Your task to perform on an android device: Do I have any events today? Image 0: 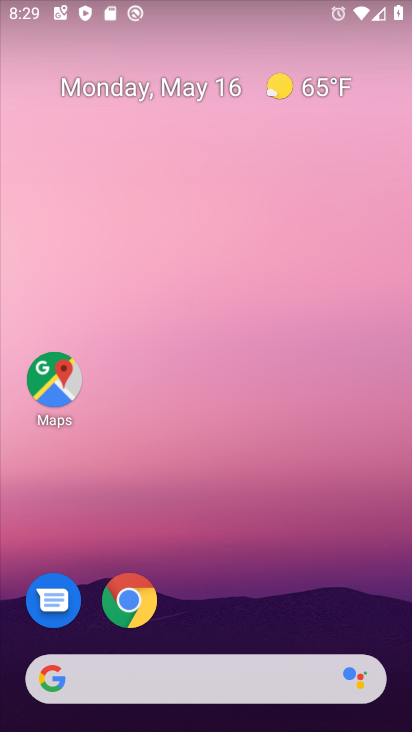
Step 0: click (245, 281)
Your task to perform on an android device: Do I have any events today? Image 1: 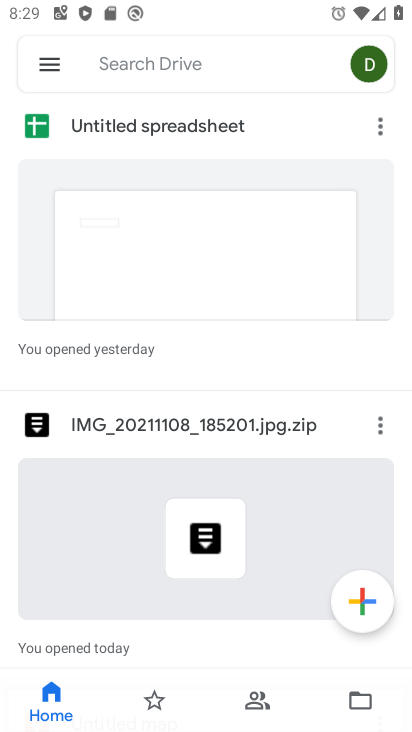
Step 1: drag from (206, 395) to (262, 1)
Your task to perform on an android device: Do I have any events today? Image 2: 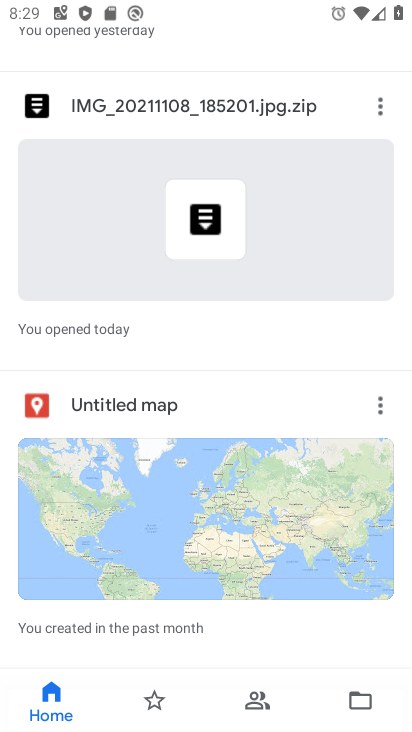
Step 2: drag from (218, 492) to (281, 209)
Your task to perform on an android device: Do I have any events today? Image 3: 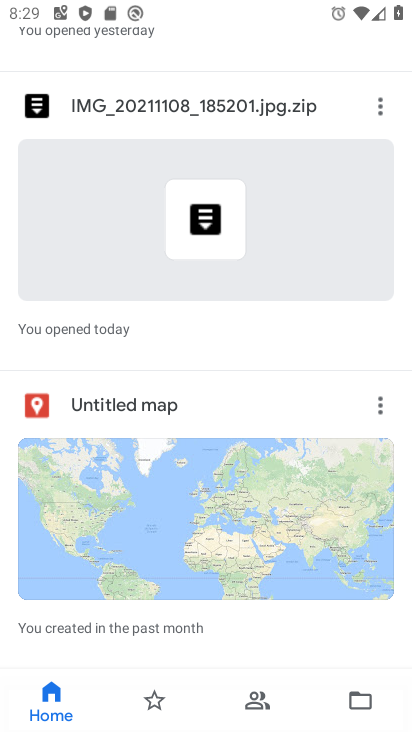
Step 3: drag from (93, 123) to (264, 551)
Your task to perform on an android device: Do I have any events today? Image 4: 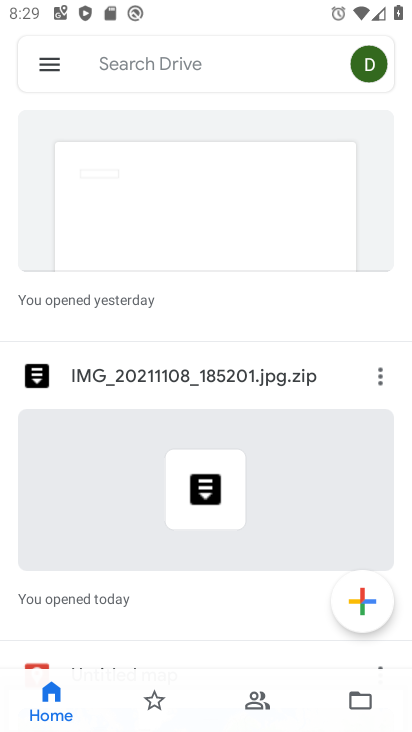
Step 4: press home button
Your task to perform on an android device: Do I have any events today? Image 5: 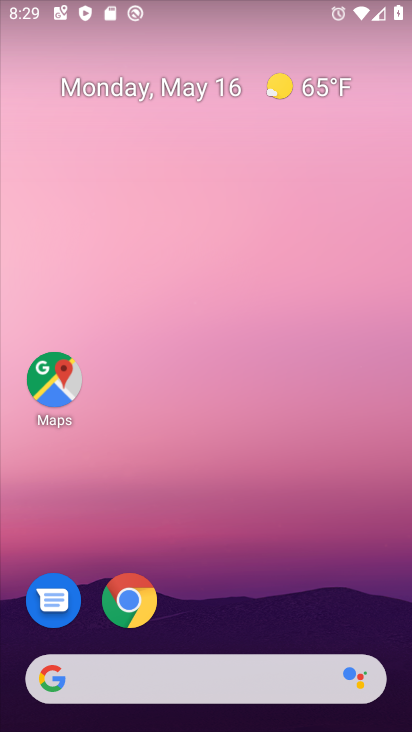
Step 5: drag from (209, 597) to (219, 0)
Your task to perform on an android device: Do I have any events today? Image 6: 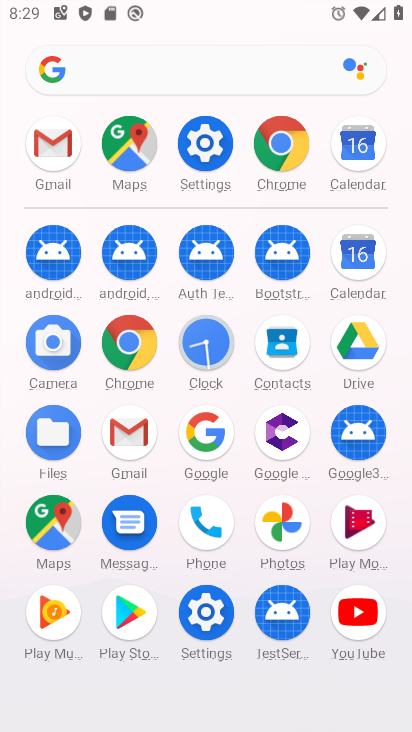
Step 6: click (186, 73)
Your task to perform on an android device: Do I have any events today? Image 7: 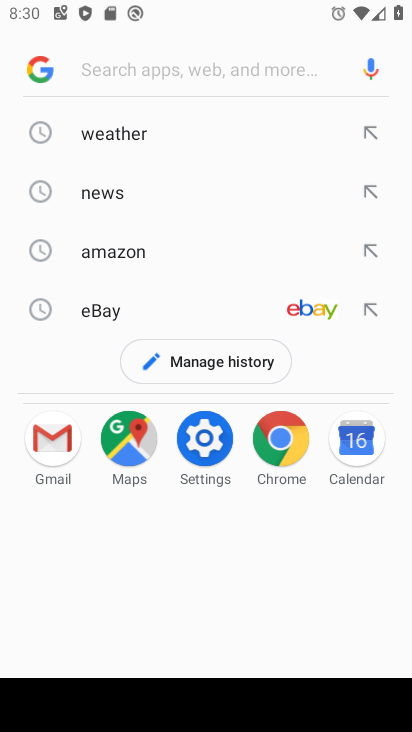
Step 7: press home button
Your task to perform on an android device: Do I have any events today? Image 8: 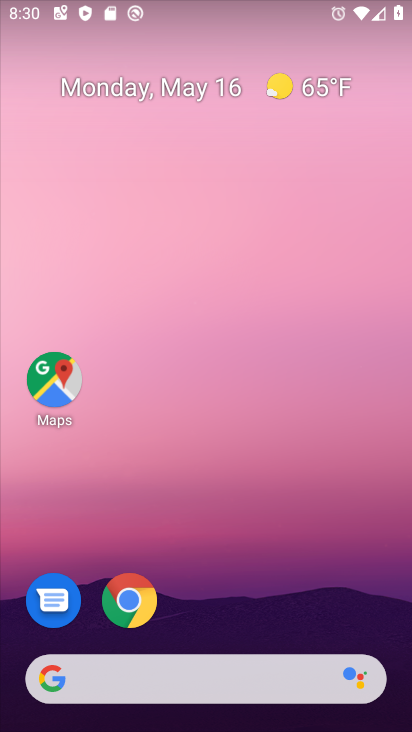
Step 8: drag from (255, 445) to (255, 305)
Your task to perform on an android device: Do I have any events today? Image 9: 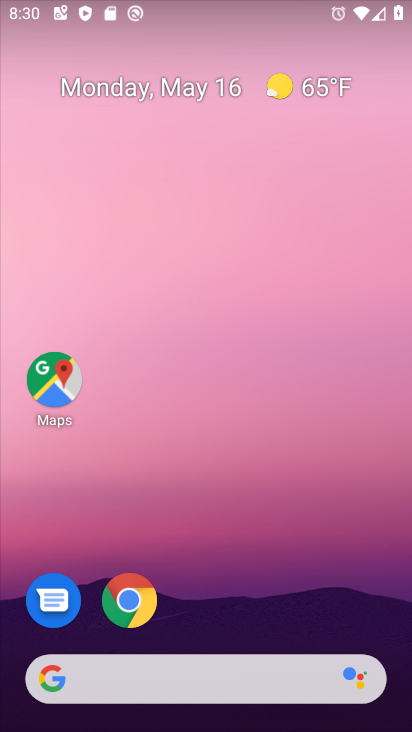
Step 9: drag from (204, 634) to (237, 135)
Your task to perform on an android device: Do I have any events today? Image 10: 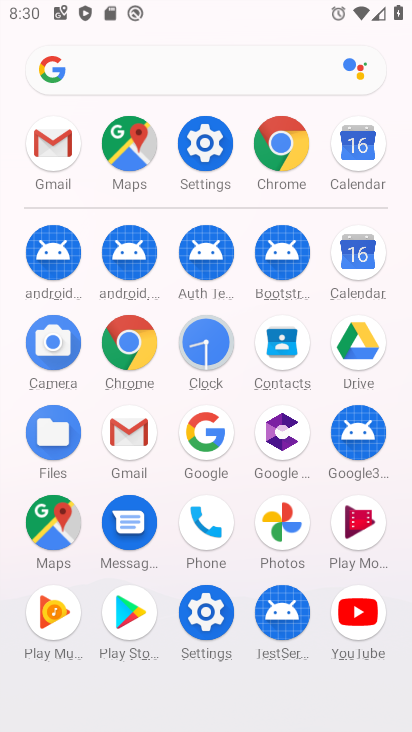
Step 10: click (371, 242)
Your task to perform on an android device: Do I have any events today? Image 11: 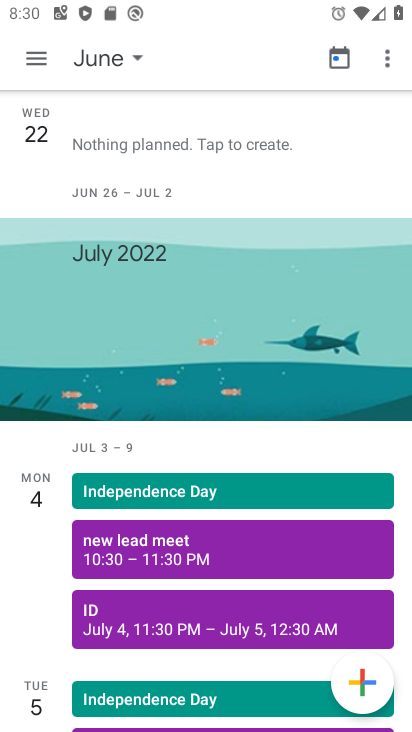
Step 11: drag from (270, 568) to (347, 250)
Your task to perform on an android device: Do I have any events today? Image 12: 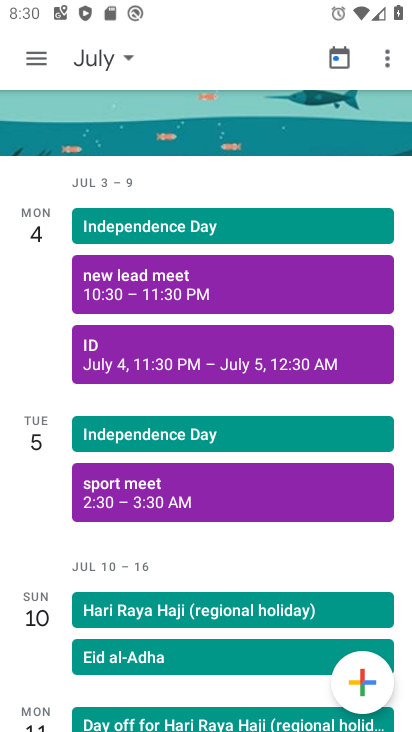
Step 12: drag from (267, 704) to (359, 242)
Your task to perform on an android device: Do I have any events today? Image 13: 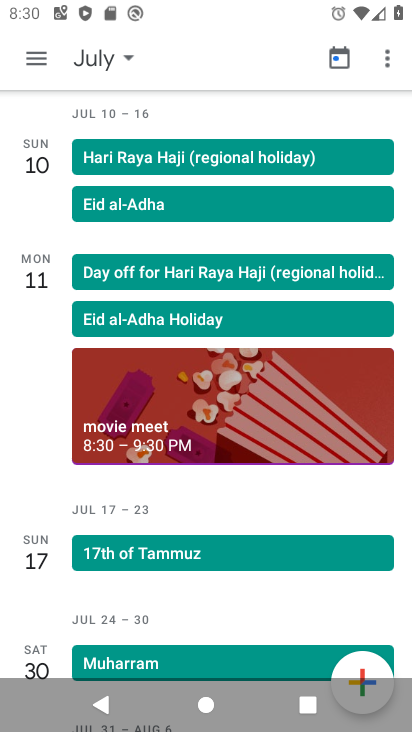
Step 13: drag from (263, 575) to (314, 264)
Your task to perform on an android device: Do I have any events today? Image 14: 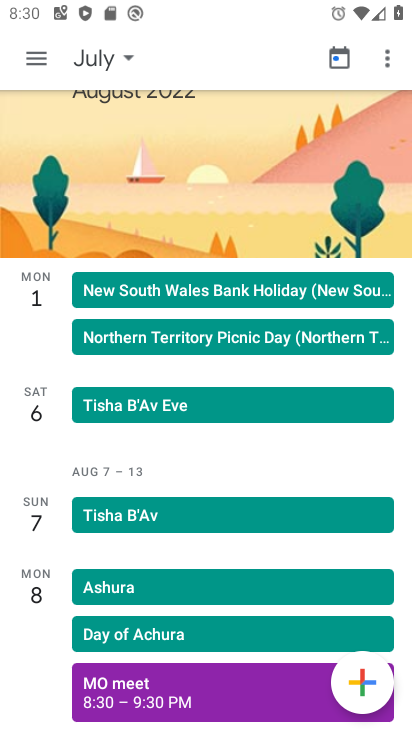
Step 14: drag from (298, 245) to (337, 579)
Your task to perform on an android device: Do I have any events today? Image 15: 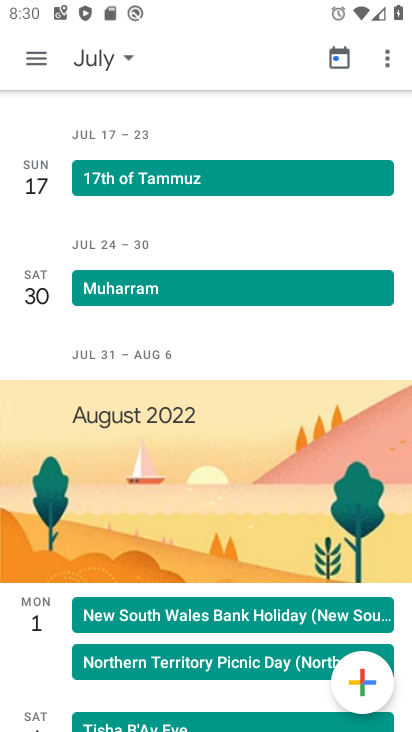
Step 15: click (103, 57)
Your task to perform on an android device: Do I have any events today? Image 16: 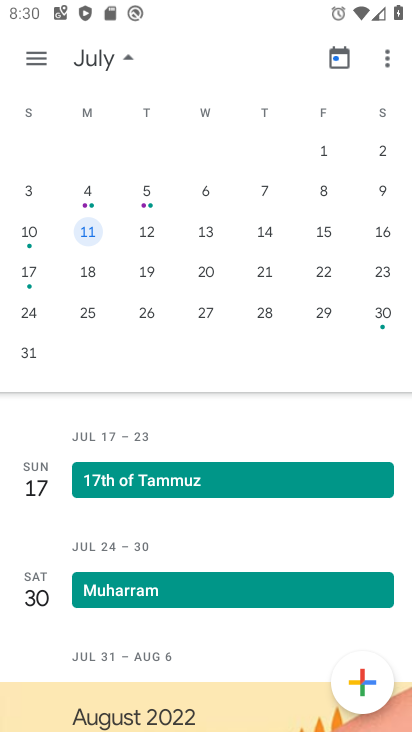
Step 16: drag from (29, 252) to (411, 183)
Your task to perform on an android device: Do I have any events today? Image 17: 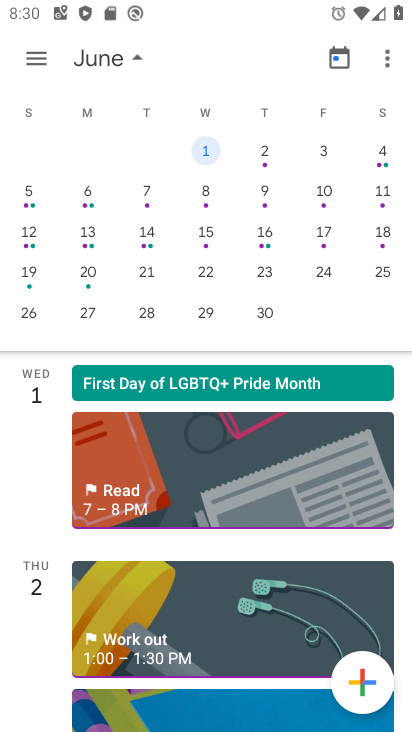
Step 17: drag from (31, 224) to (411, 193)
Your task to perform on an android device: Do I have any events today? Image 18: 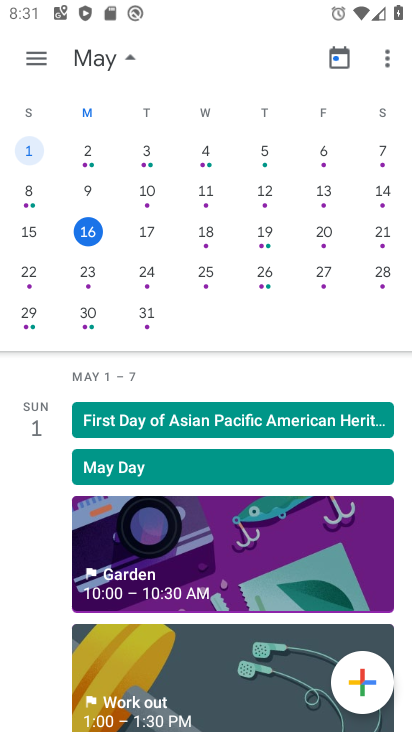
Step 18: click (153, 228)
Your task to perform on an android device: Do I have any events today? Image 19: 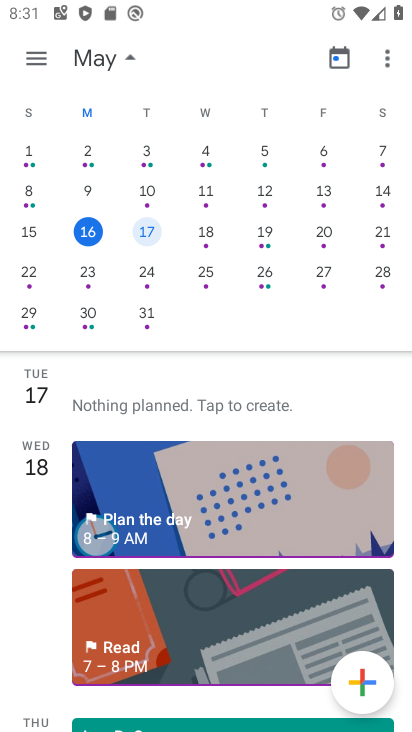
Step 19: task complete